Your task to perform on an android device: find which apps use the phone's location Image 0: 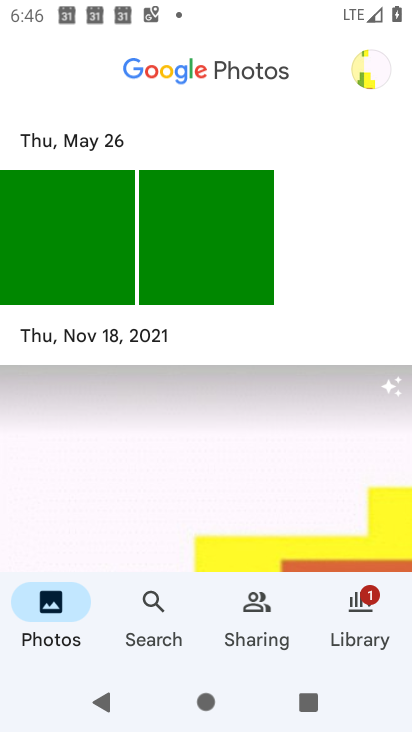
Step 0: press home button
Your task to perform on an android device: find which apps use the phone's location Image 1: 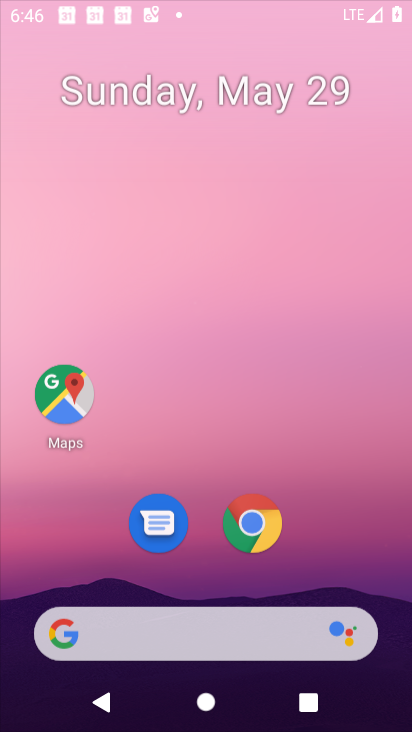
Step 1: drag from (320, 604) to (268, 38)
Your task to perform on an android device: find which apps use the phone's location Image 2: 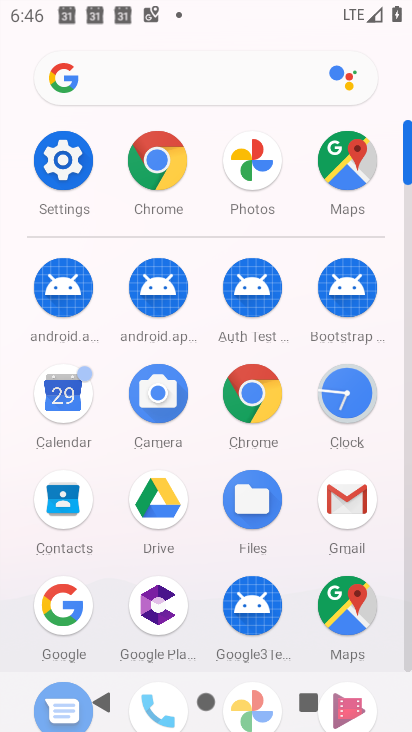
Step 2: click (68, 162)
Your task to perform on an android device: find which apps use the phone's location Image 3: 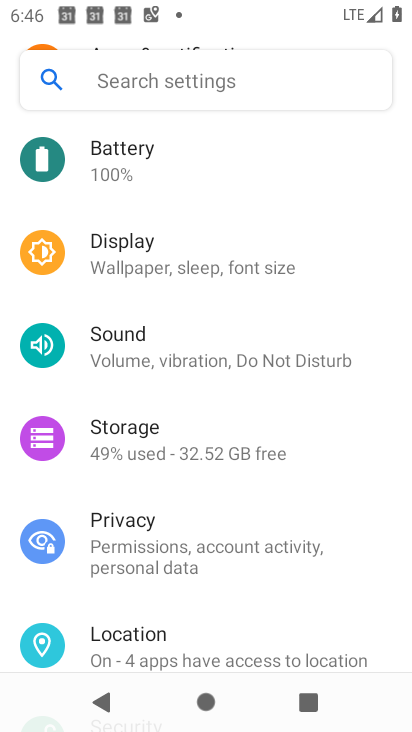
Step 3: click (173, 639)
Your task to perform on an android device: find which apps use the phone's location Image 4: 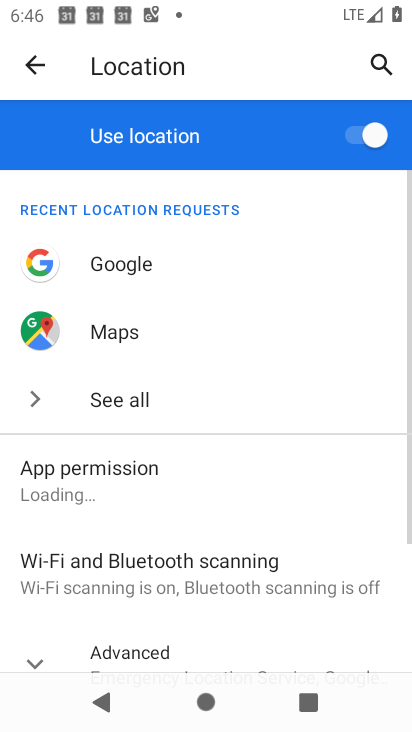
Step 4: click (107, 489)
Your task to perform on an android device: find which apps use the phone's location Image 5: 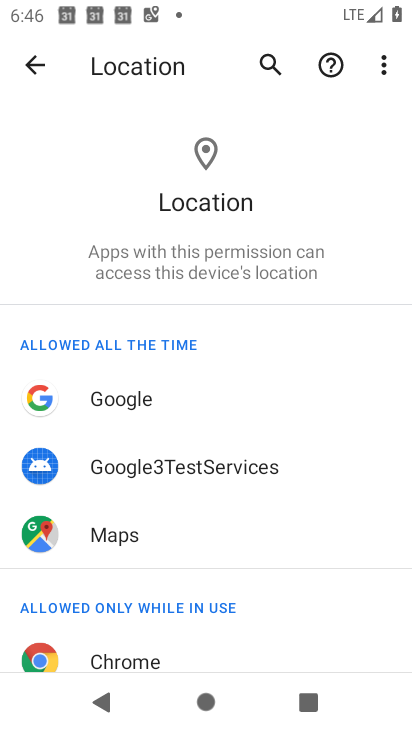
Step 5: drag from (188, 636) to (254, 204)
Your task to perform on an android device: find which apps use the phone's location Image 6: 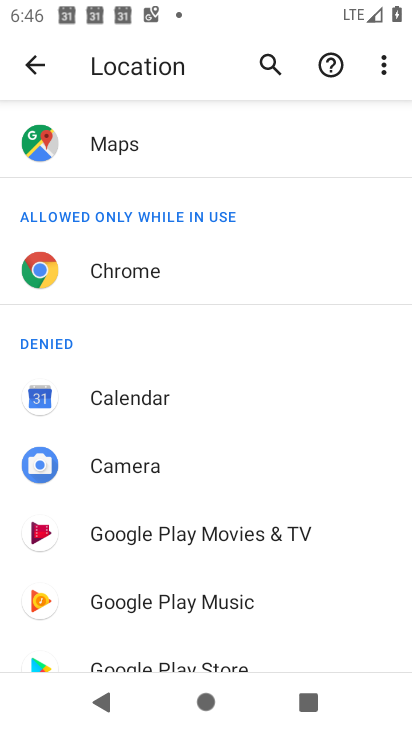
Step 6: drag from (152, 608) to (208, 217)
Your task to perform on an android device: find which apps use the phone's location Image 7: 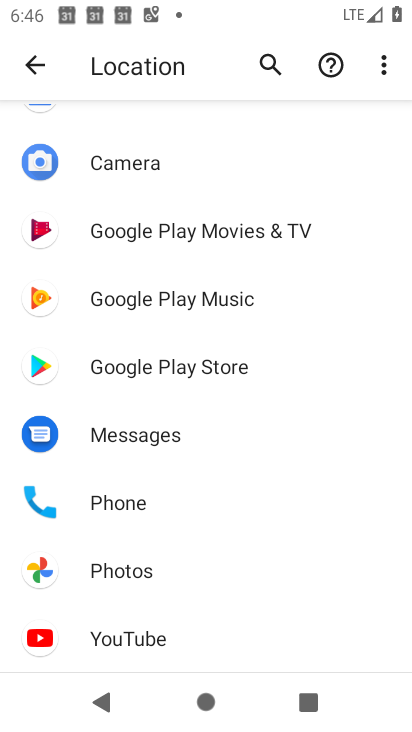
Step 7: click (78, 503)
Your task to perform on an android device: find which apps use the phone's location Image 8: 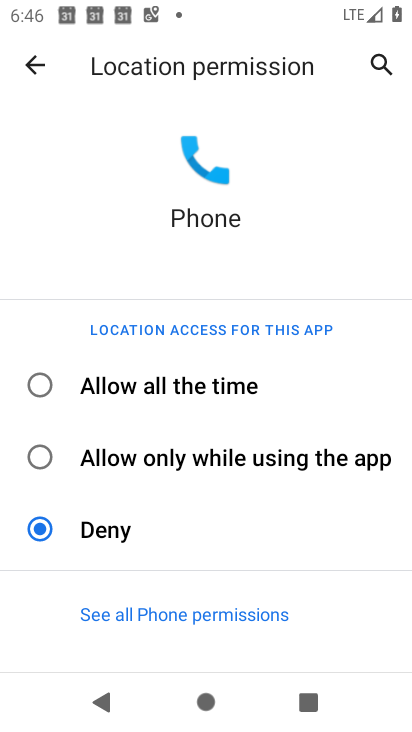
Step 8: task complete